Your task to perform on an android device: Open calendar and show me the third week of next month Image 0: 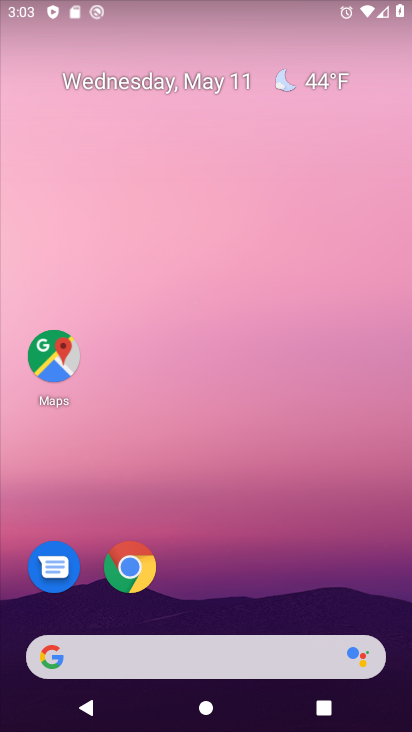
Step 0: drag from (246, 540) to (236, 77)
Your task to perform on an android device: Open calendar and show me the third week of next month Image 1: 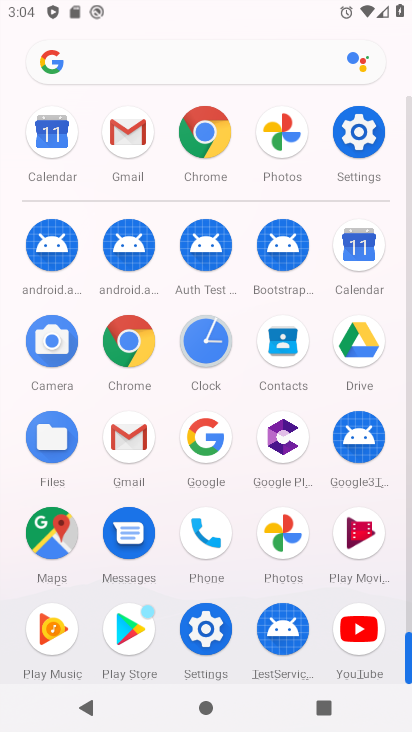
Step 1: drag from (10, 571) to (22, 263)
Your task to perform on an android device: Open calendar and show me the third week of next month Image 2: 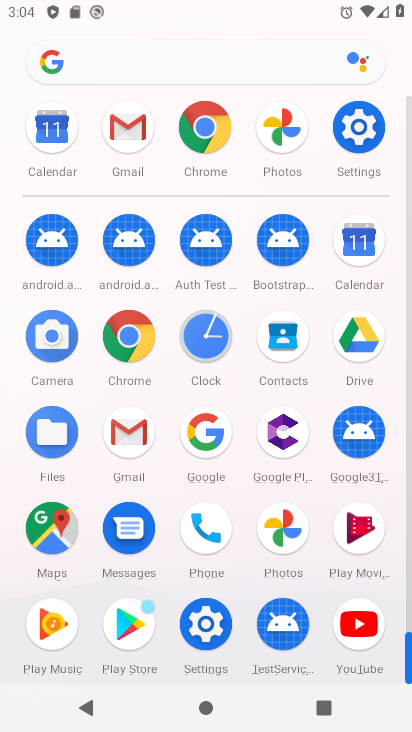
Step 2: click (360, 235)
Your task to perform on an android device: Open calendar and show me the third week of next month Image 3: 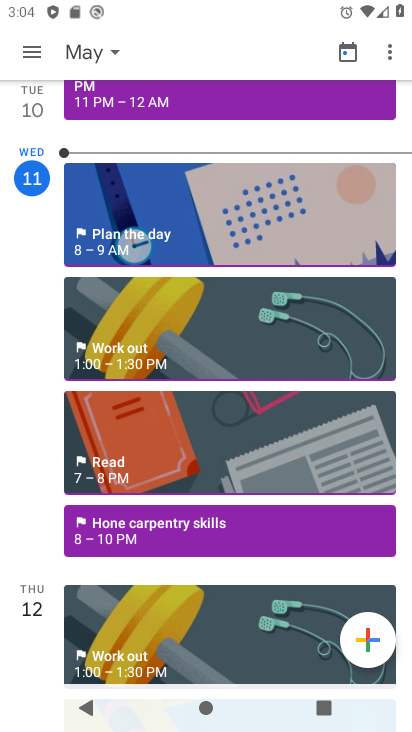
Step 3: click (88, 49)
Your task to perform on an android device: Open calendar and show me the third week of next month Image 4: 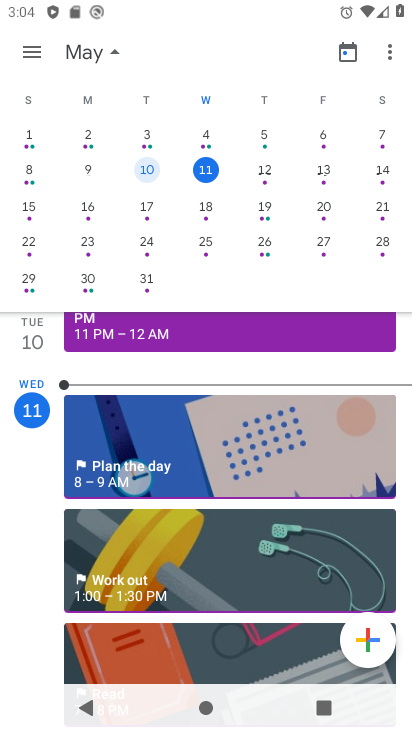
Step 4: drag from (383, 219) to (0, 210)
Your task to perform on an android device: Open calendar and show me the third week of next month Image 5: 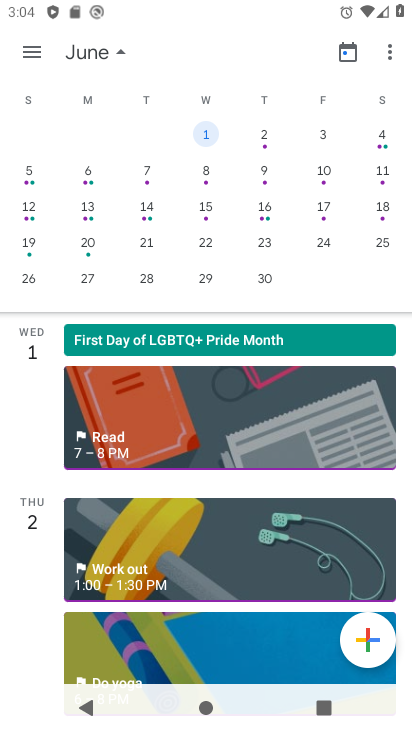
Step 5: click (26, 206)
Your task to perform on an android device: Open calendar and show me the third week of next month Image 6: 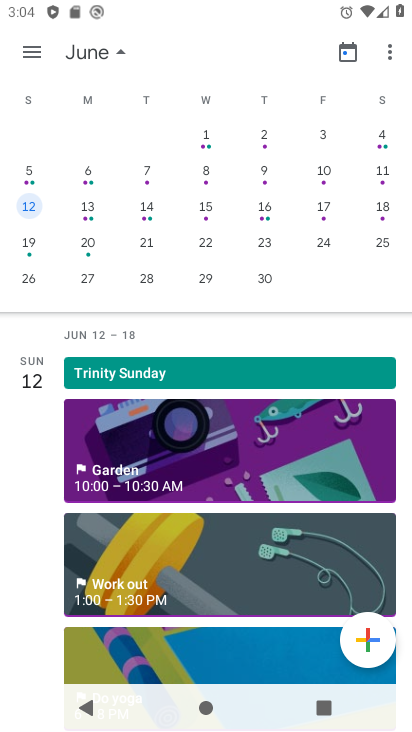
Step 6: click (37, 54)
Your task to perform on an android device: Open calendar and show me the third week of next month Image 7: 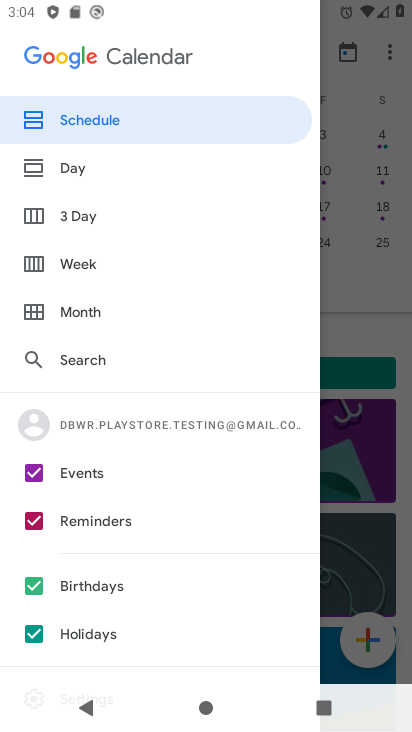
Step 7: click (100, 267)
Your task to perform on an android device: Open calendar and show me the third week of next month Image 8: 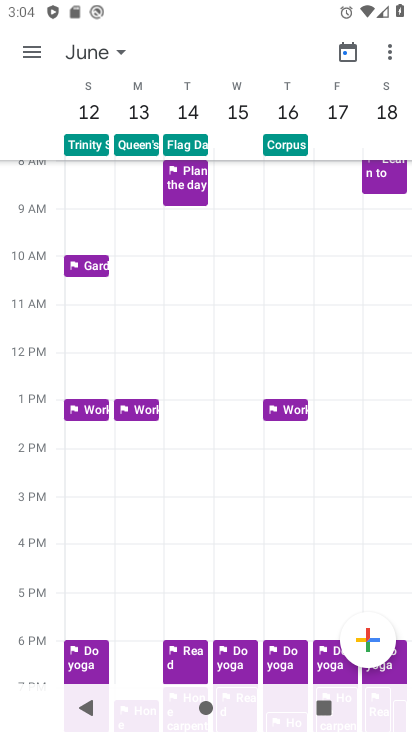
Step 8: task complete